Your task to perform on an android device: find snoozed emails in the gmail app Image 0: 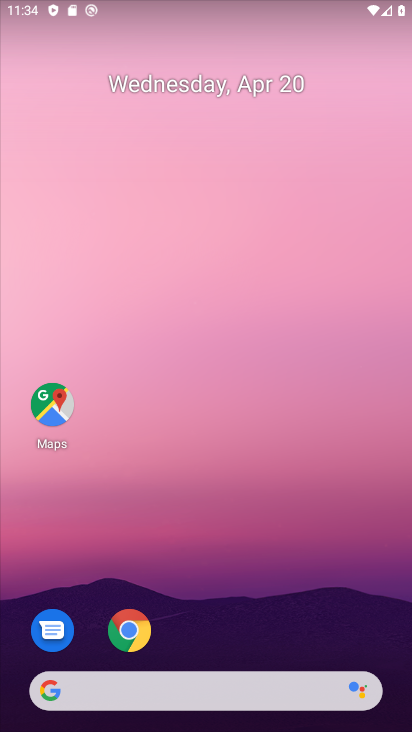
Step 0: drag from (282, 561) to (327, 89)
Your task to perform on an android device: find snoozed emails in the gmail app Image 1: 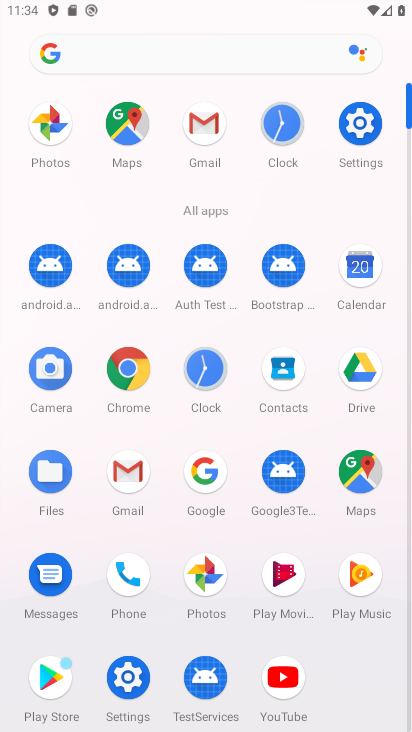
Step 1: click (215, 137)
Your task to perform on an android device: find snoozed emails in the gmail app Image 2: 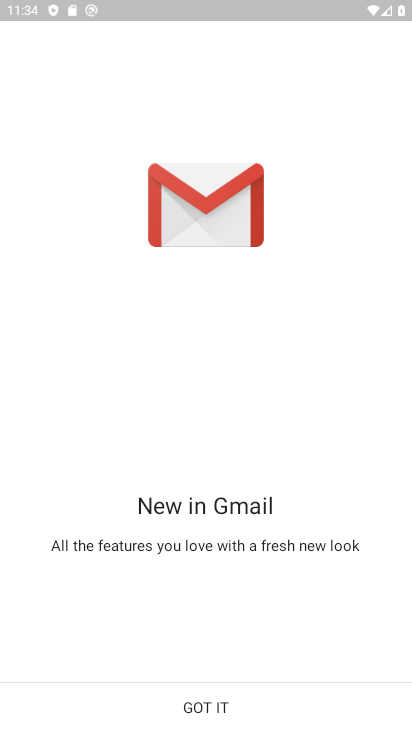
Step 2: click (220, 702)
Your task to perform on an android device: find snoozed emails in the gmail app Image 3: 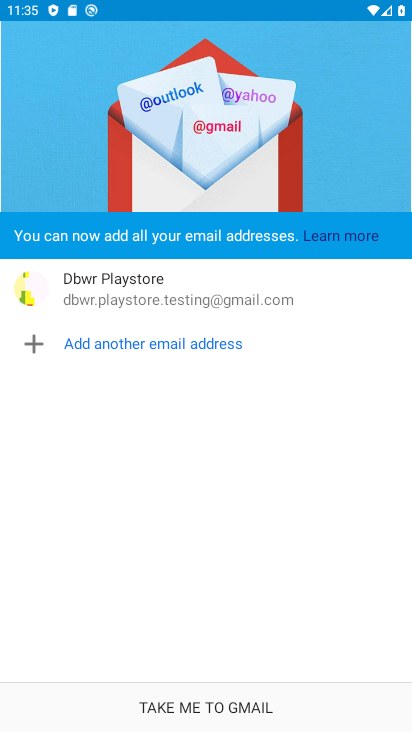
Step 3: click (223, 705)
Your task to perform on an android device: find snoozed emails in the gmail app Image 4: 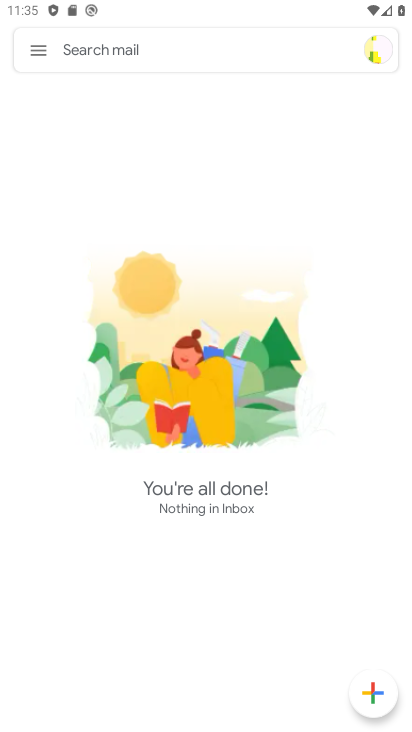
Step 4: task complete